Your task to perform on an android device: allow notifications from all sites in the chrome app Image 0: 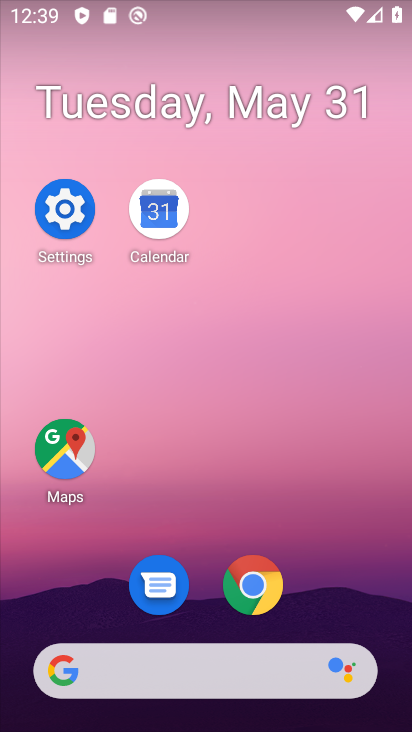
Step 0: click (254, 596)
Your task to perform on an android device: allow notifications from all sites in the chrome app Image 1: 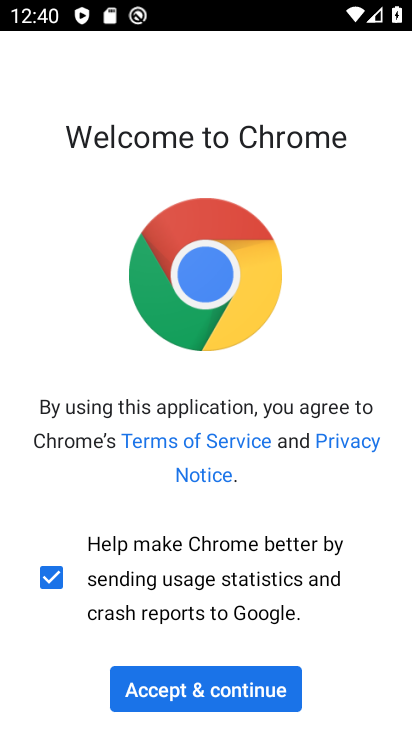
Step 1: click (199, 698)
Your task to perform on an android device: allow notifications from all sites in the chrome app Image 2: 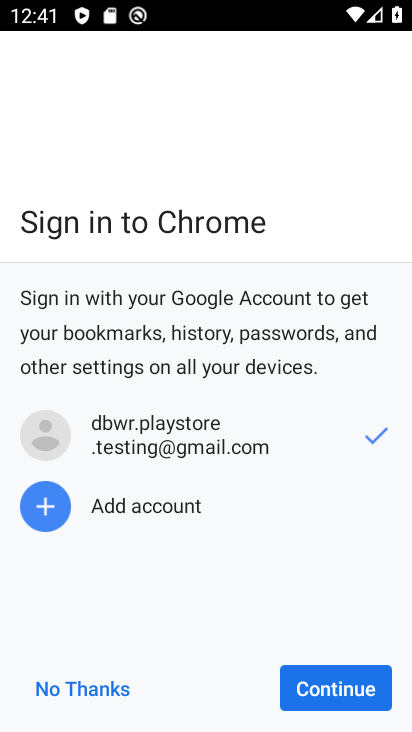
Step 2: click (354, 690)
Your task to perform on an android device: allow notifications from all sites in the chrome app Image 3: 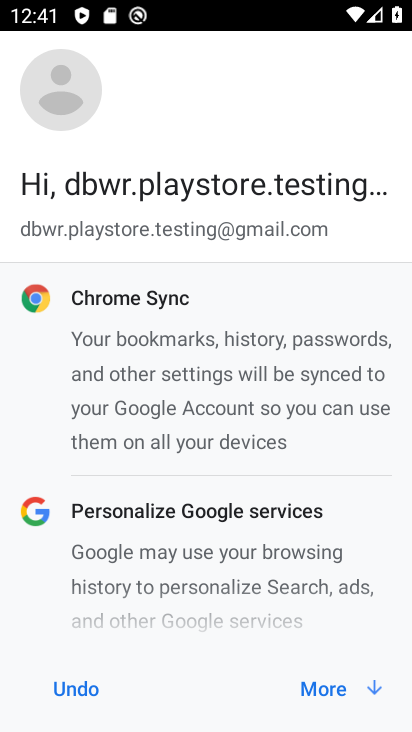
Step 3: click (321, 686)
Your task to perform on an android device: allow notifications from all sites in the chrome app Image 4: 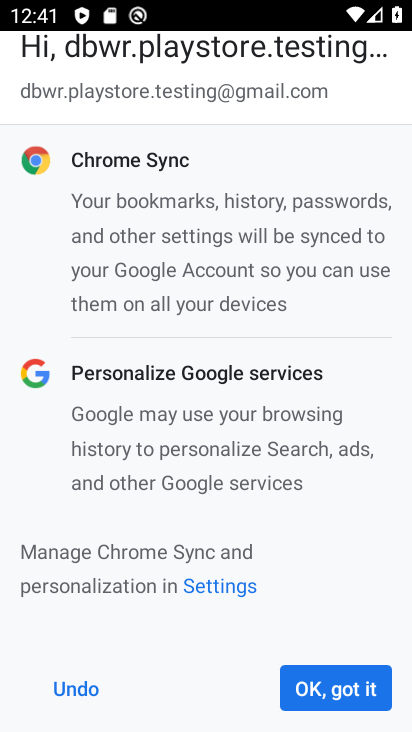
Step 4: click (321, 686)
Your task to perform on an android device: allow notifications from all sites in the chrome app Image 5: 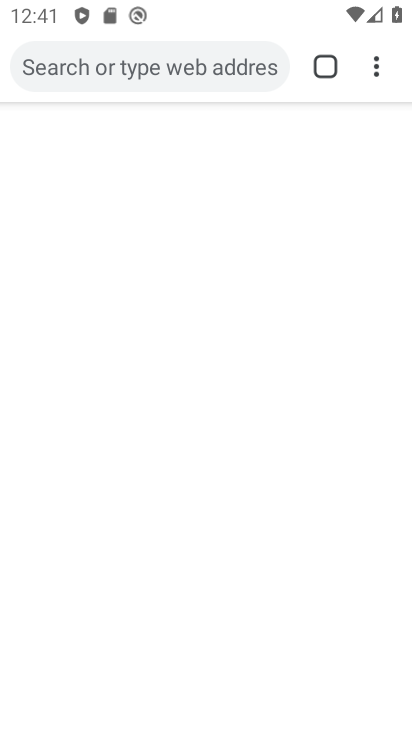
Step 5: click (376, 66)
Your task to perform on an android device: allow notifications from all sites in the chrome app Image 6: 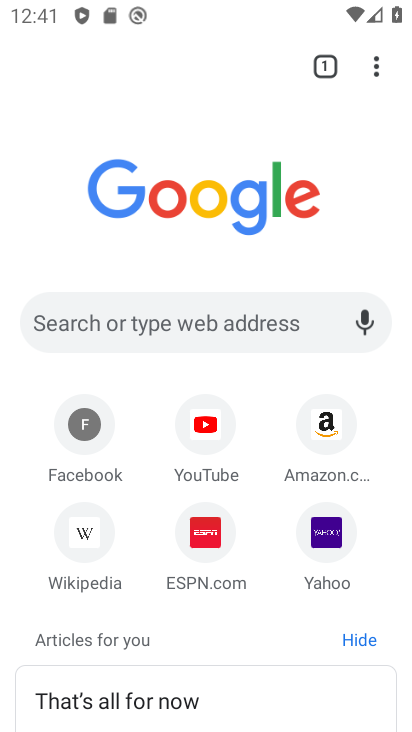
Step 6: click (399, 55)
Your task to perform on an android device: allow notifications from all sites in the chrome app Image 7: 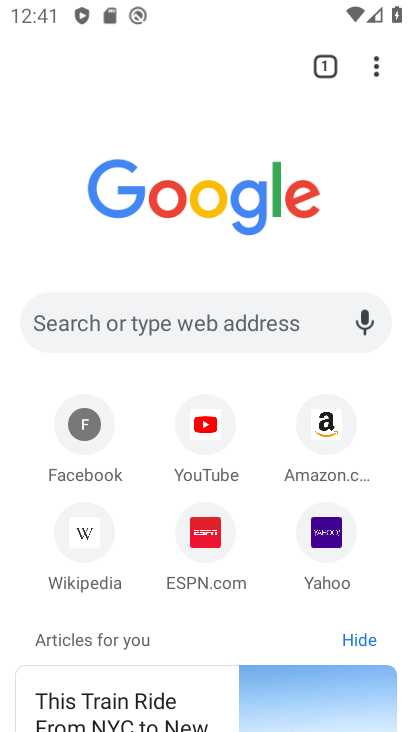
Step 7: click (376, 62)
Your task to perform on an android device: allow notifications from all sites in the chrome app Image 8: 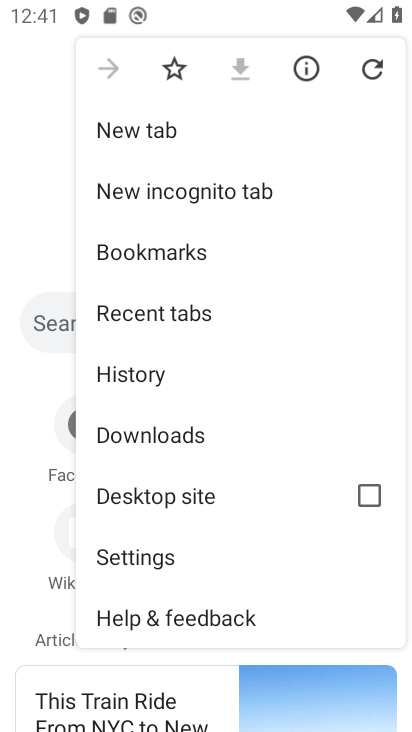
Step 8: drag from (208, 504) to (240, 184)
Your task to perform on an android device: allow notifications from all sites in the chrome app Image 9: 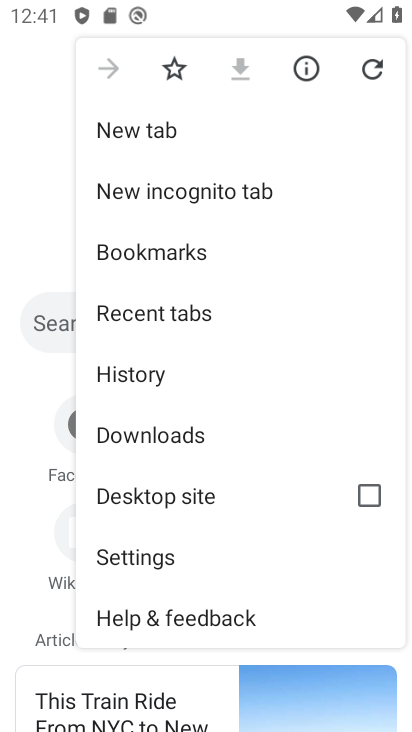
Step 9: click (167, 550)
Your task to perform on an android device: allow notifications from all sites in the chrome app Image 10: 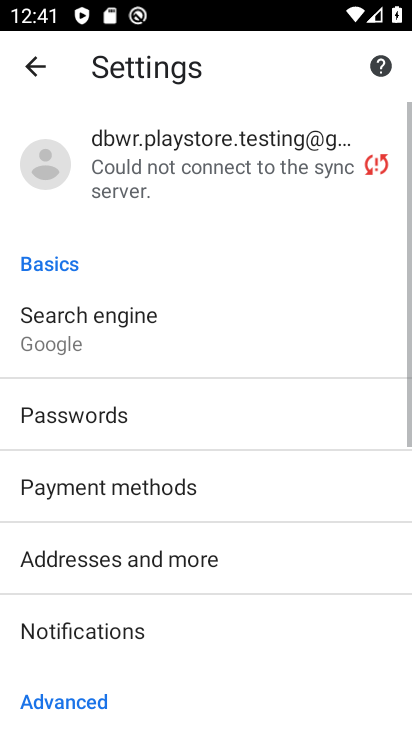
Step 10: drag from (168, 536) to (207, 230)
Your task to perform on an android device: allow notifications from all sites in the chrome app Image 11: 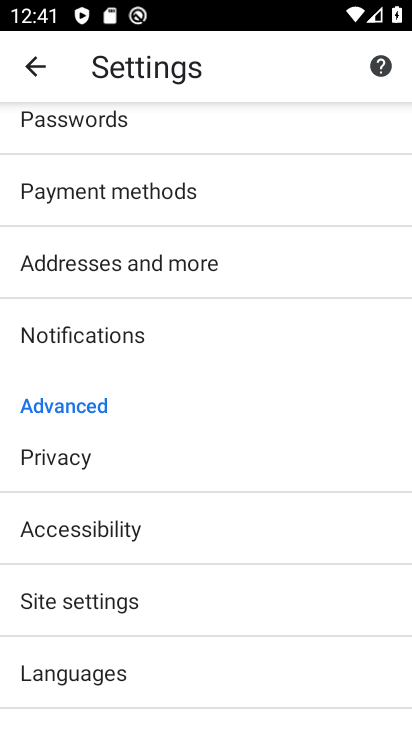
Step 11: click (145, 589)
Your task to perform on an android device: allow notifications from all sites in the chrome app Image 12: 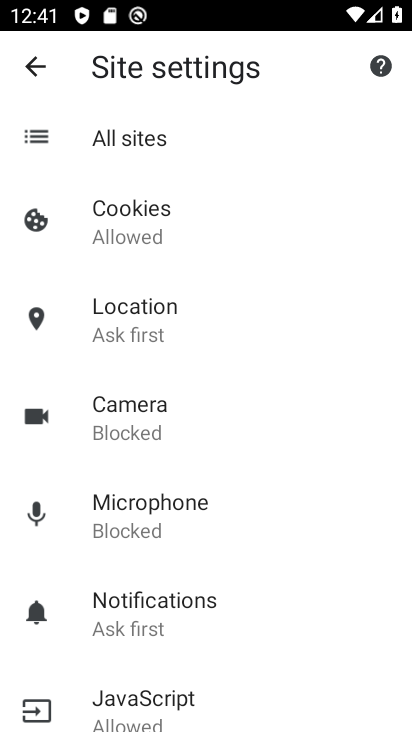
Step 12: drag from (283, 513) to (307, 168)
Your task to perform on an android device: allow notifications from all sites in the chrome app Image 13: 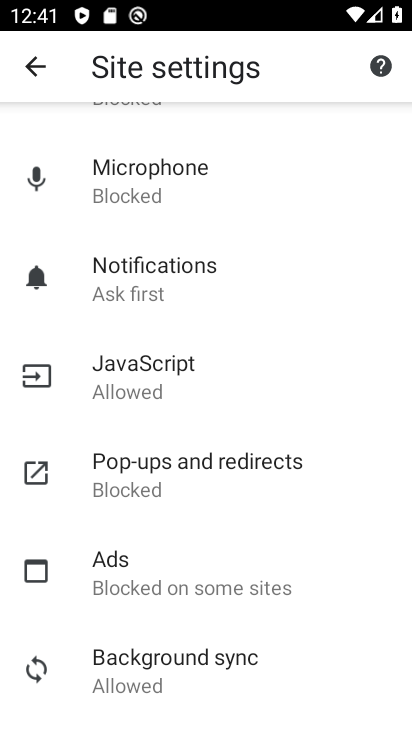
Step 13: click (195, 273)
Your task to perform on an android device: allow notifications from all sites in the chrome app Image 14: 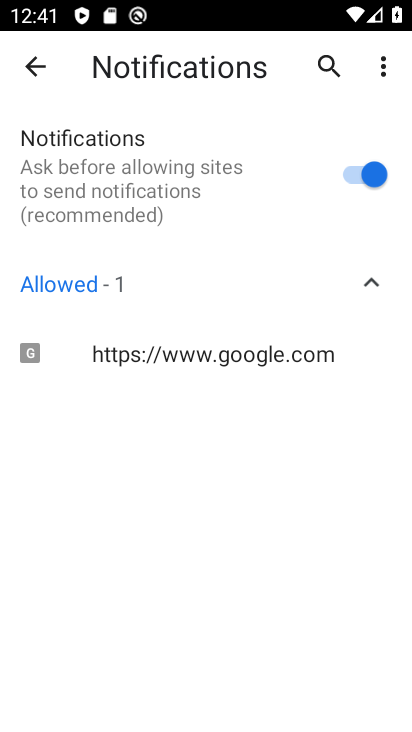
Step 14: task complete